Your task to perform on an android device: move an email to a new category in the gmail app Image 0: 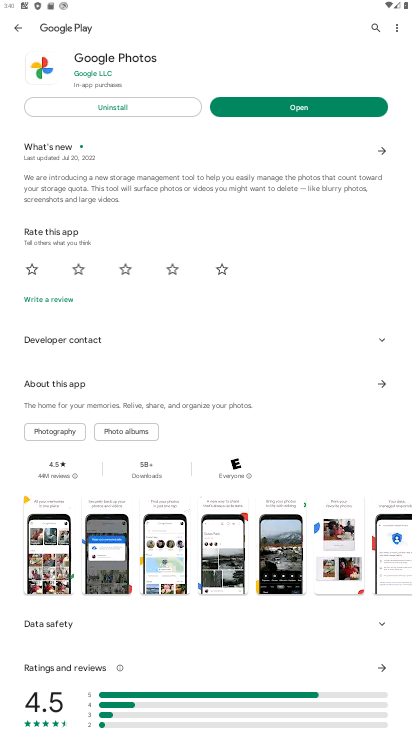
Step 0: press home button
Your task to perform on an android device: move an email to a new category in the gmail app Image 1: 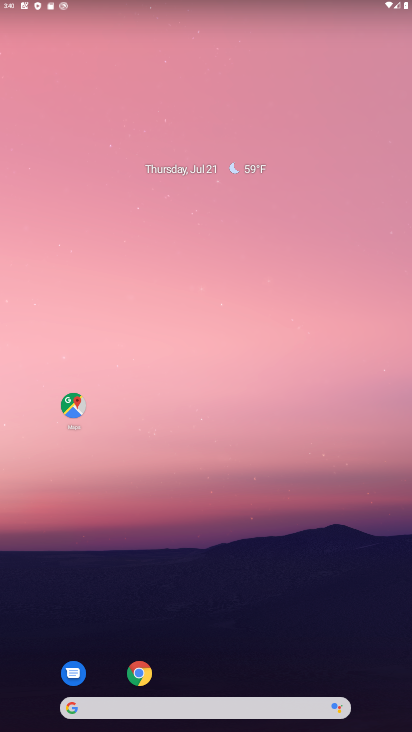
Step 1: drag from (380, 680) to (350, 157)
Your task to perform on an android device: move an email to a new category in the gmail app Image 2: 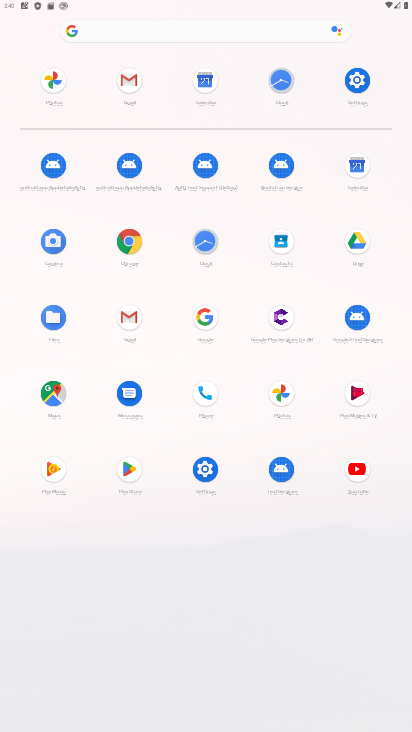
Step 2: click (129, 318)
Your task to perform on an android device: move an email to a new category in the gmail app Image 3: 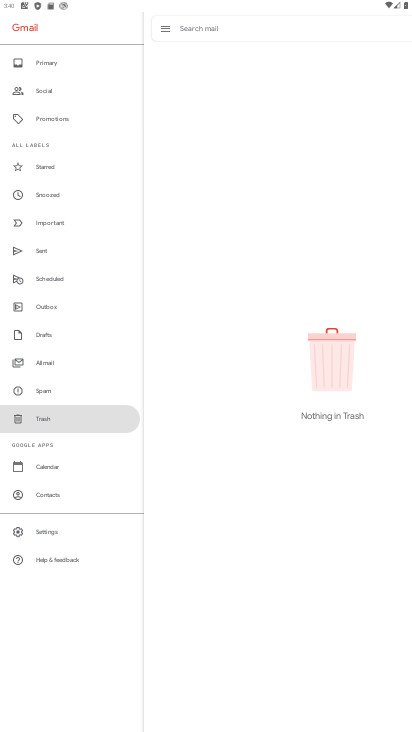
Step 3: click (49, 361)
Your task to perform on an android device: move an email to a new category in the gmail app Image 4: 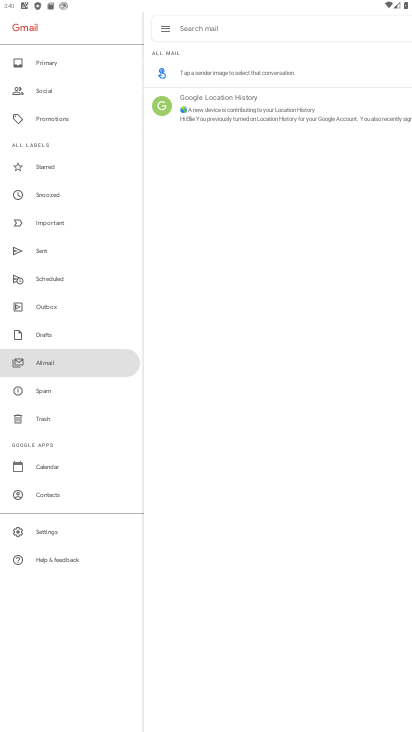
Step 4: click (279, 102)
Your task to perform on an android device: move an email to a new category in the gmail app Image 5: 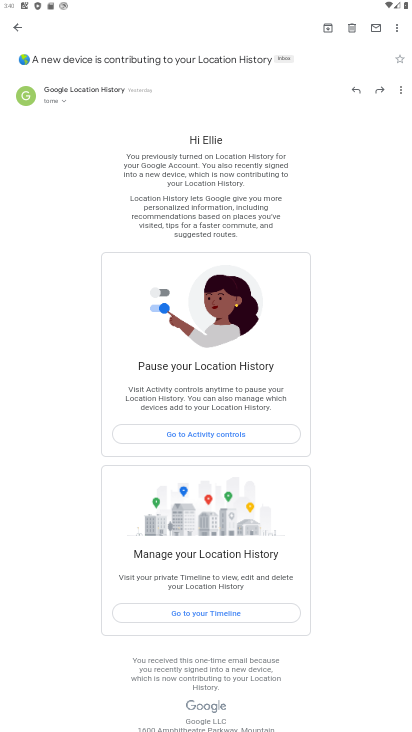
Step 5: click (396, 33)
Your task to perform on an android device: move an email to a new category in the gmail app Image 6: 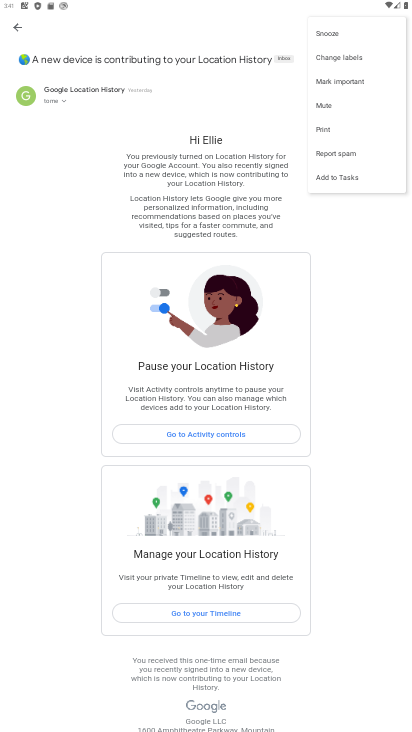
Step 6: task complete